Your task to perform on an android device: change text size in settings app Image 0: 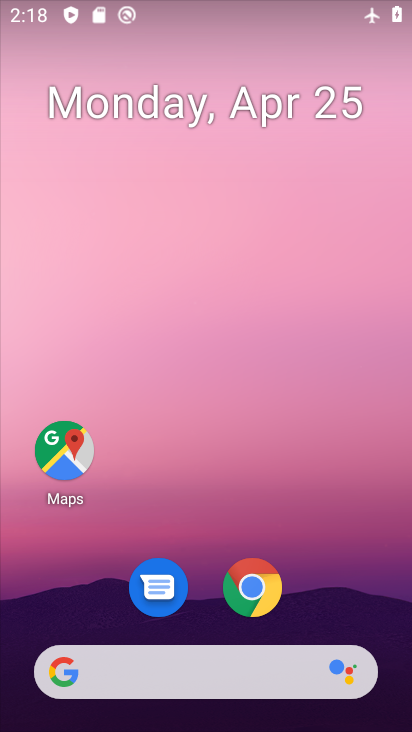
Step 0: drag from (281, 391) to (246, 121)
Your task to perform on an android device: change text size in settings app Image 1: 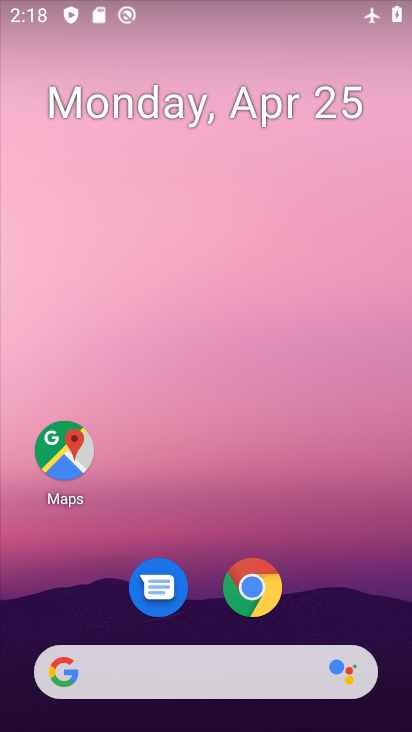
Step 1: drag from (268, 272) to (226, 4)
Your task to perform on an android device: change text size in settings app Image 2: 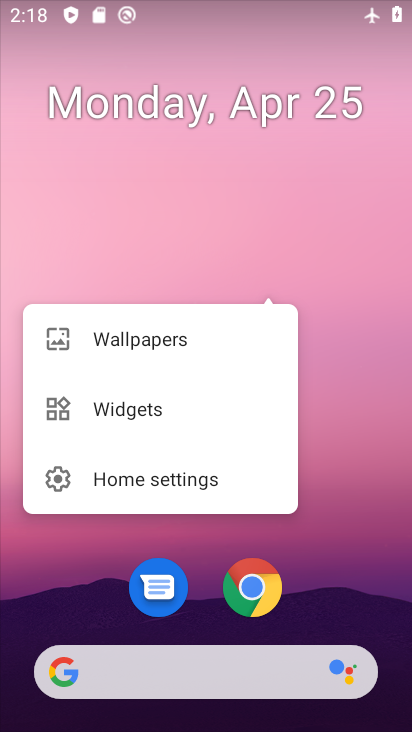
Step 2: drag from (372, 511) to (309, 116)
Your task to perform on an android device: change text size in settings app Image 3: 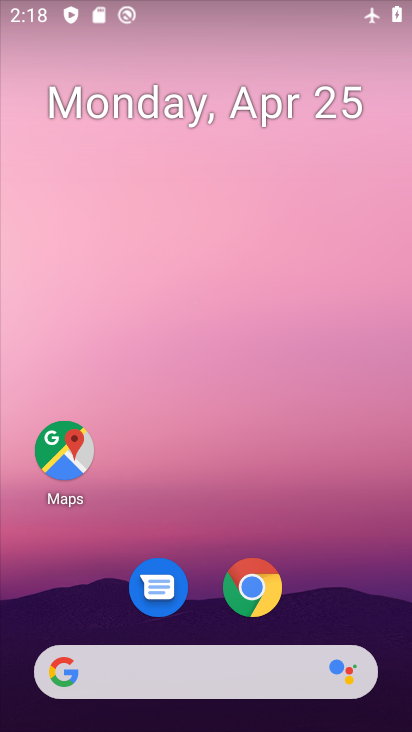
Step 3: drag from (326, 559) to (255, 90)
Your task to perform on an android device: change text size in settings app Image 4: 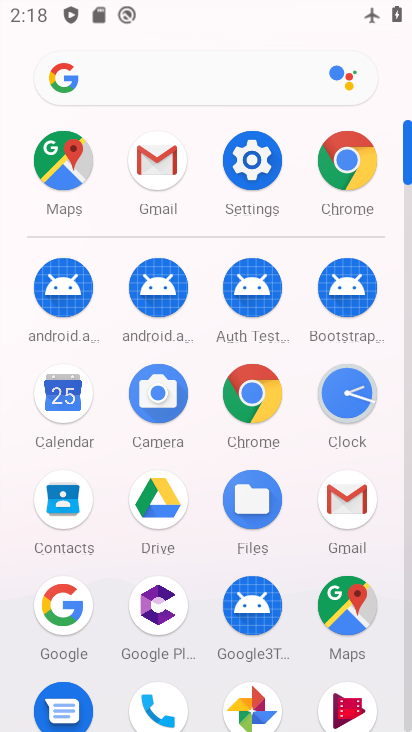
Step 4: click (224, 158)
Your task to perform on an android device: change text size in settings app Image 5: 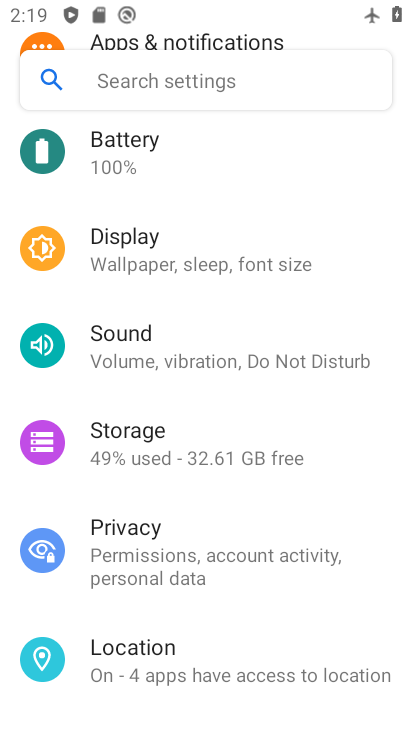
Step 5: drag from (224, 152) to (232, 602)
Your task to perform on an android device: change text size in settings app Image 6: 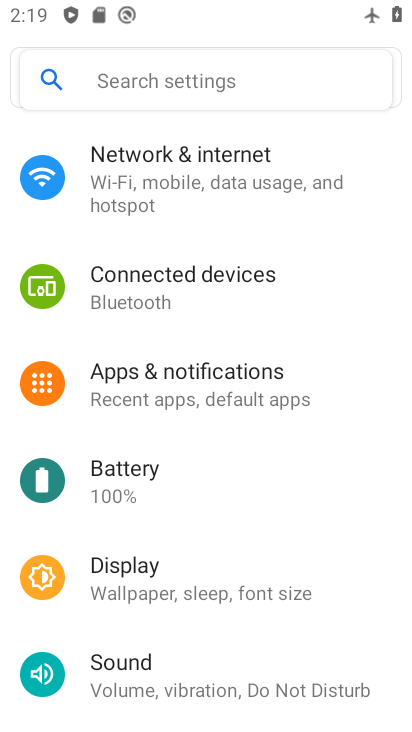
Step 6: drag from (282, 469) to (285, 242)
Your task to perform on an android device: change text size in settings app Image 7: 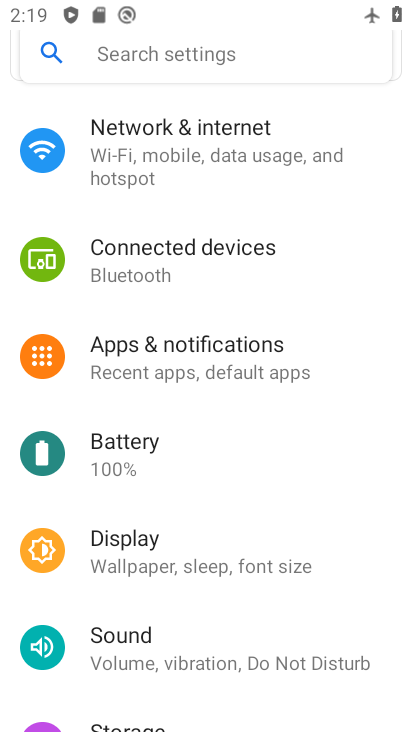
Step 7: drag from (242, 538) to (285, 116)
Your task to perform on an android device: change text size in settings app Image 8: 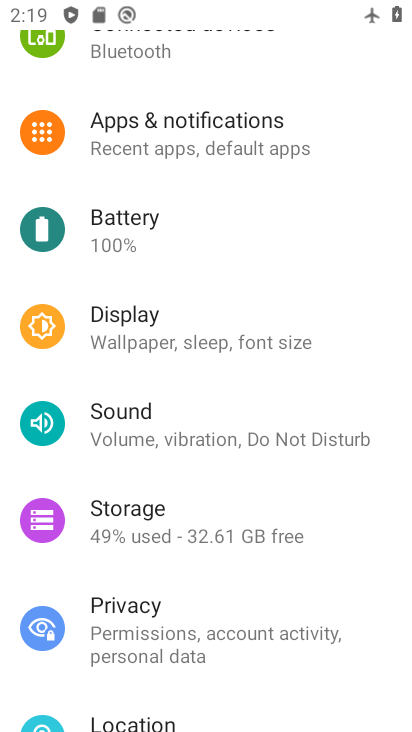
Step 8: drag from (232, 649) to (268, 194)
Your task to perform on an android device: change text size in settings app Image 9: 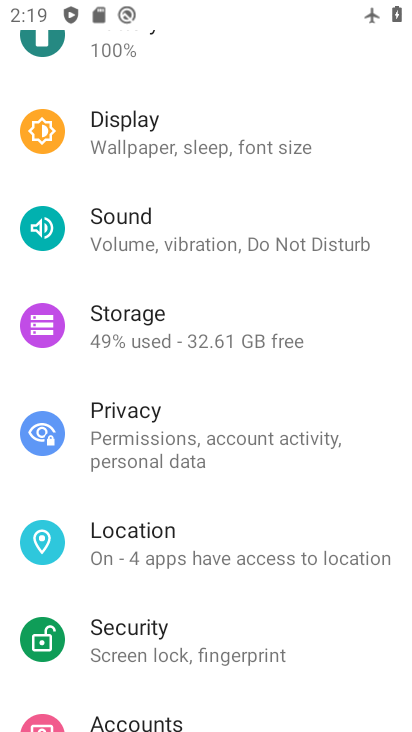
Step 9: drag from (230, 568) to (270, 142)
Your task to perform on an android device: change text size in settings app Image 10: 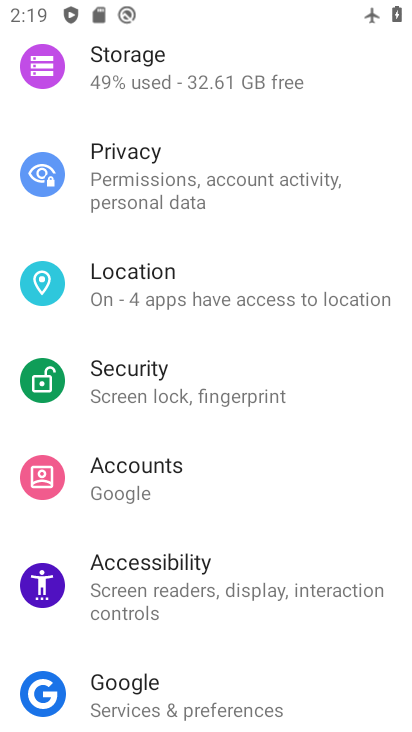
Step 10: drag from (247, 604) to (317, 167)
Your task to perform on an android device: change text size in settings app Image 11: 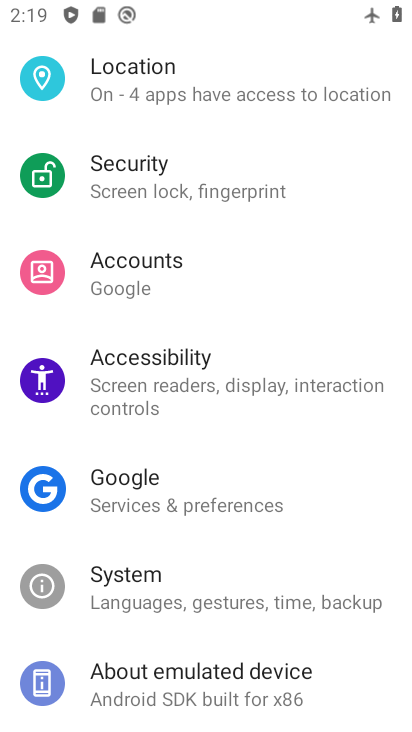
Step 11: click (249, 397)
Your task to perform on an android device: change text size in settings app Image 12: 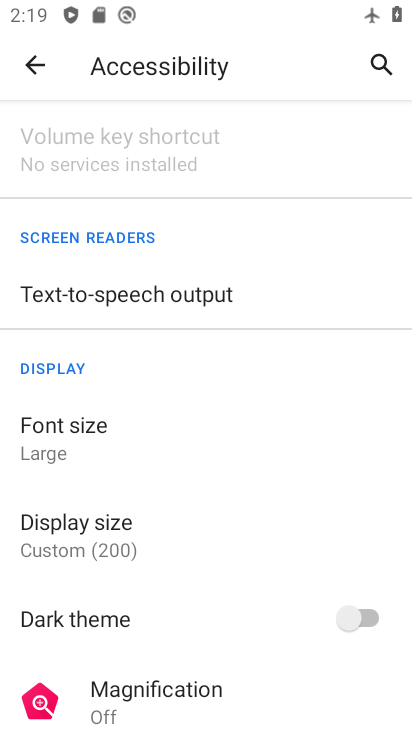
Step 12: click (58, 433)
Your task to perform on an android device: change text size in settings app Image 13: 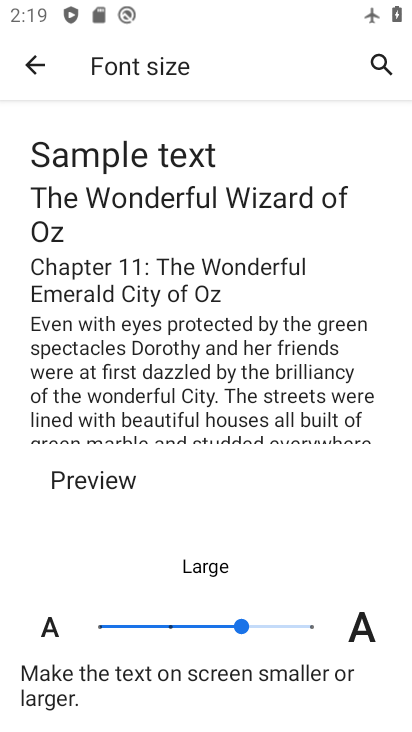
Step 13: click (171, 620)
Your task to perform on an android device: change text size in settings app Image 14: 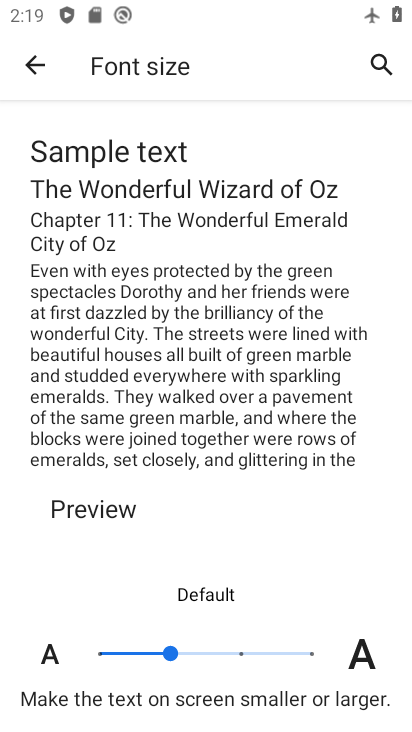
Step 14: task complete